Your task to perform on an android device: turn off wifi Image 0: 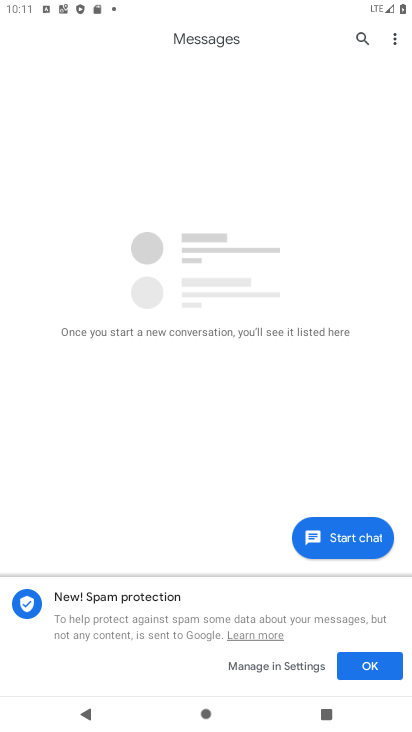
Step 0: press home button
Your task to perform on an android device: turn off wifi Image 1: 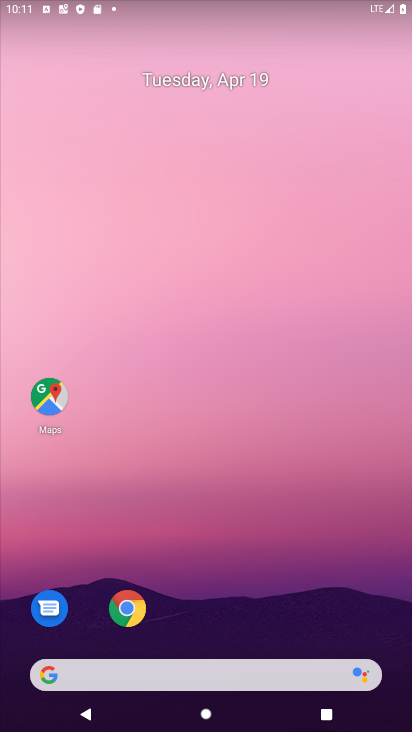
Step 1: drag from (368, 615) to (313, 163)
Your task to perform on an android device: turn off wifi Image 2: 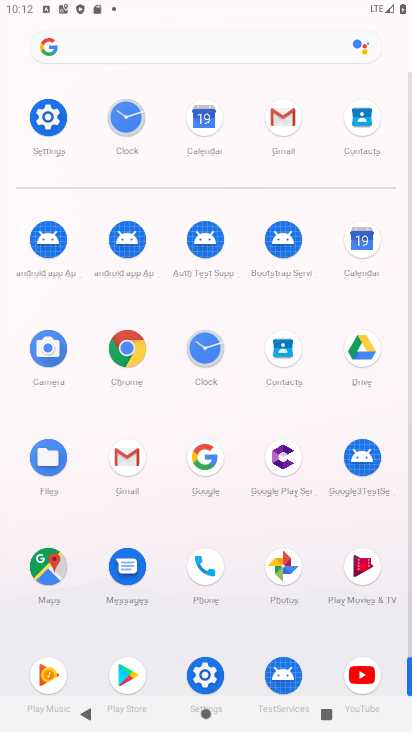
Step 2: click (203, 674)
Your task to perform on an android device: turn off wifi Image 3: 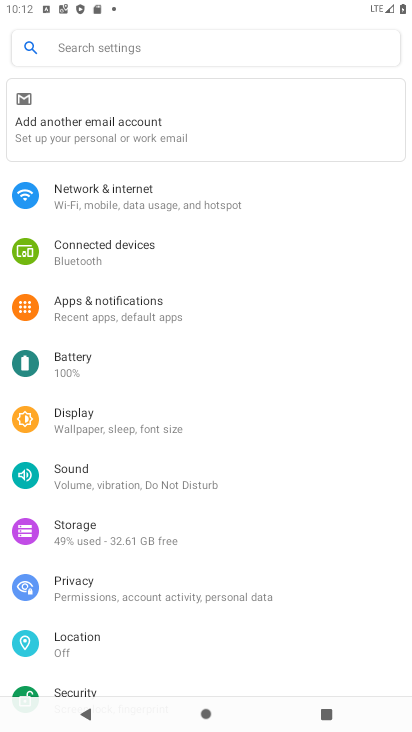
Step 3: click (94, 183)
Your task to perform on an android device: turn off wifi Image 4: 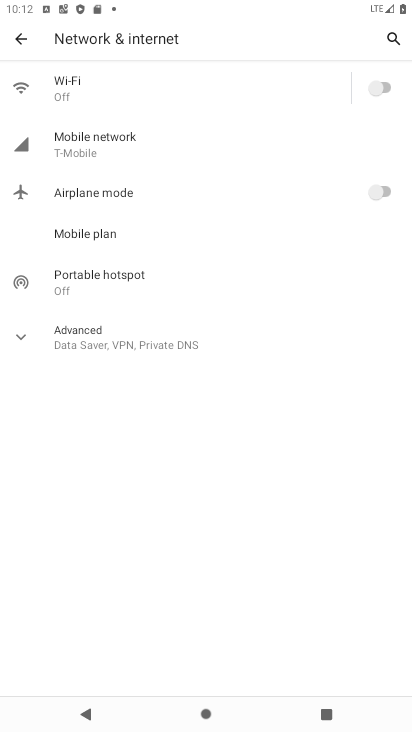
Step 4: task complete